Your task to perform on an android device: Go to battery settings Image 0: 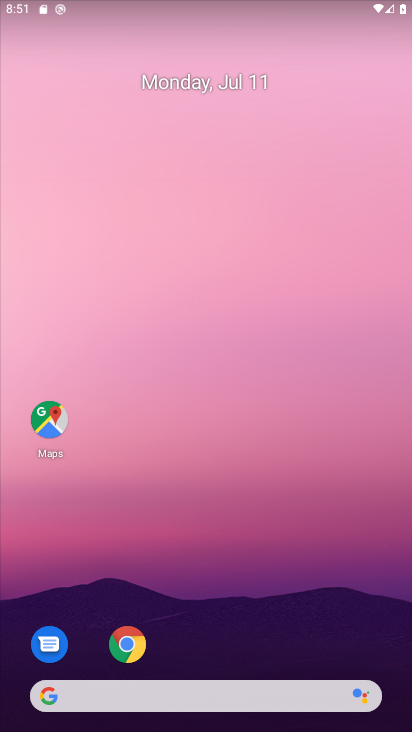
Step 0: drag from (230, 688) to (230, 274)
Your task to perform on an android device: Go to battery settings Image 1: 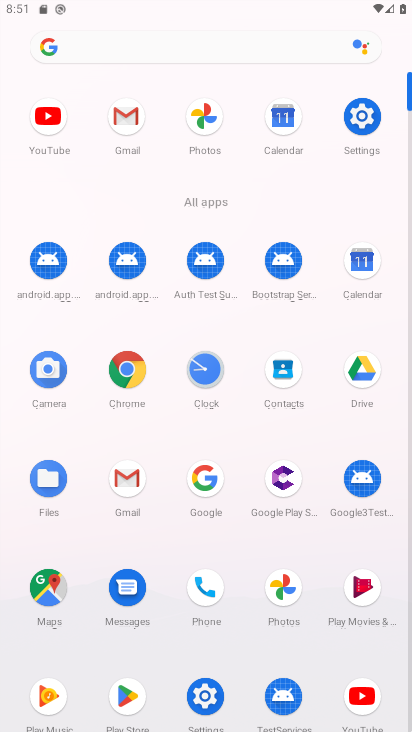
Step 1: click (362, 127)
Your task to perform on an android device: Go to battery settings Image 2: 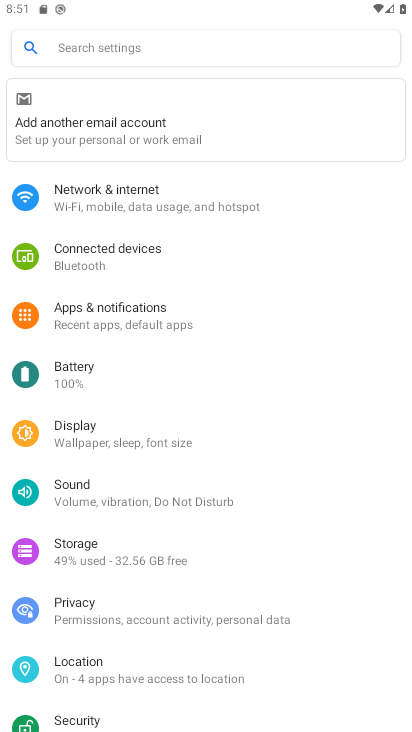
Step 2: click (84, 367)
Your task to perform on an android device: Go to battery settings Image 3: 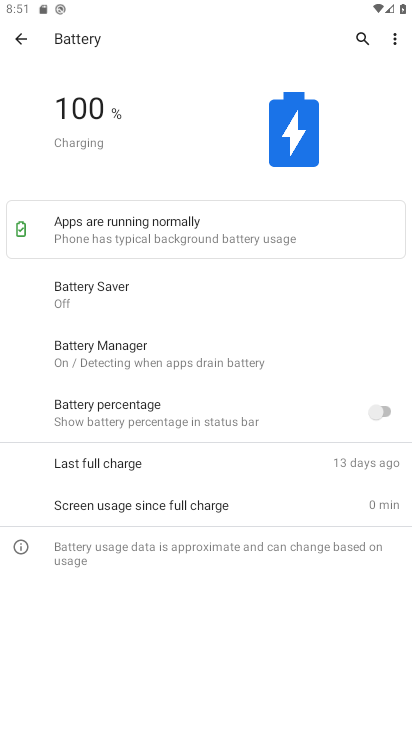
Step 3: click (389, 37)
Your task to perform on an android device: Go to battery settings Image 4: 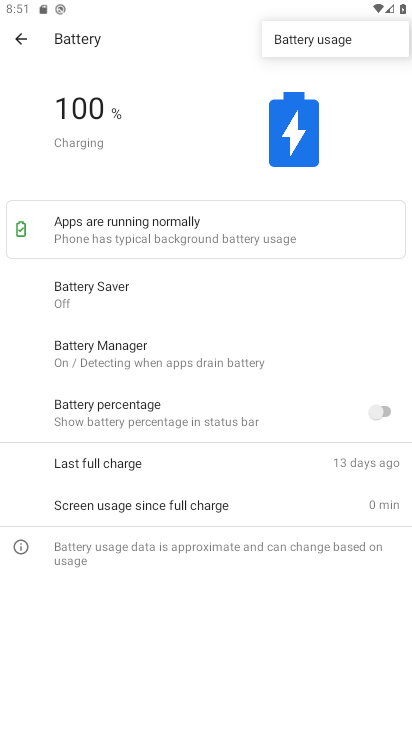
Step 4: click (364, 39)
Your task to perform on an android device: Go to battery settings Image 5: 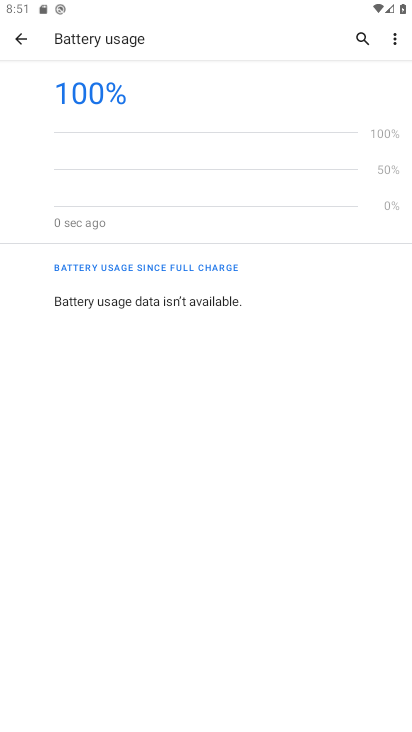
Step 5: task complete